Your task to perform on an android device: Open Wikipedia Image 0: 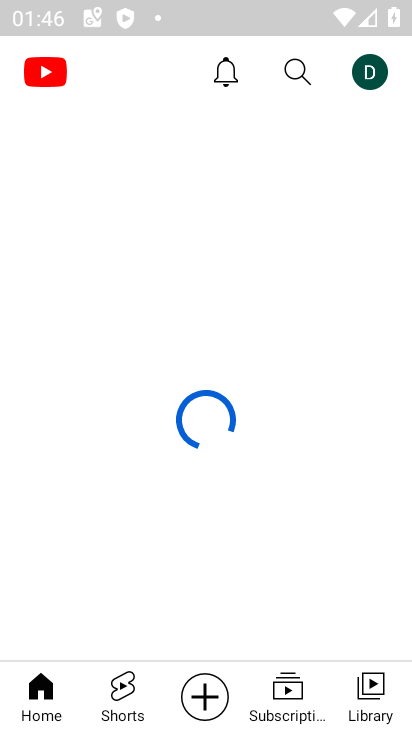
Step 0: press back button
Your task to perform on an android device: Open Wikipedia Image 1: 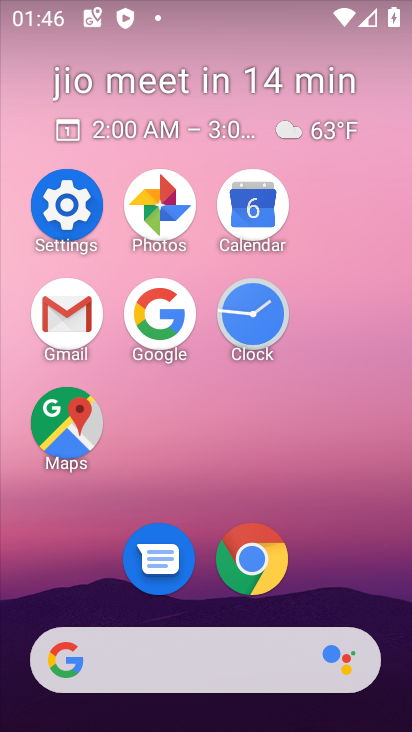
Step 1: click (263, 569)
Your task to perform on an android device: Open Wikipedia Image 2: 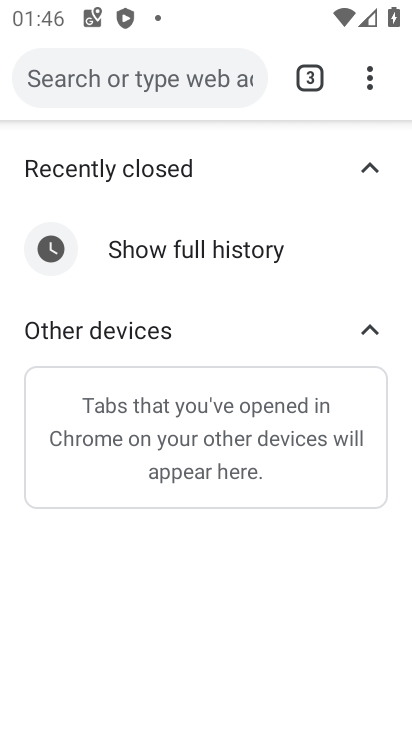
Step 2: click (300, 78)
Your task to perform on an android device: Open Wikipedia Image 3: 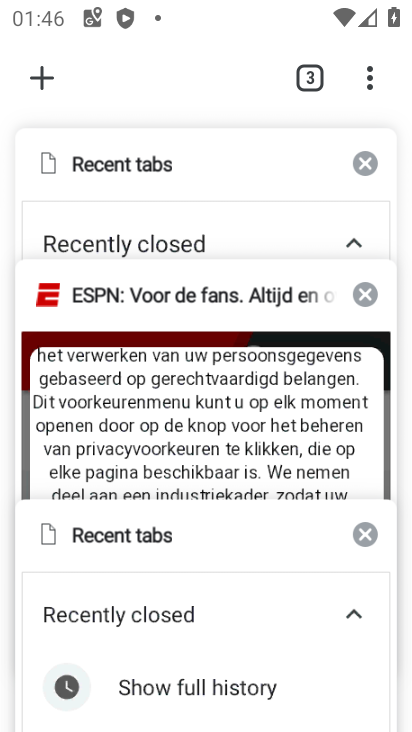
Step 3: drag from (189, 178) to (154, 503)
Your task to perform on an android device: Open Wikipedia Image 4: 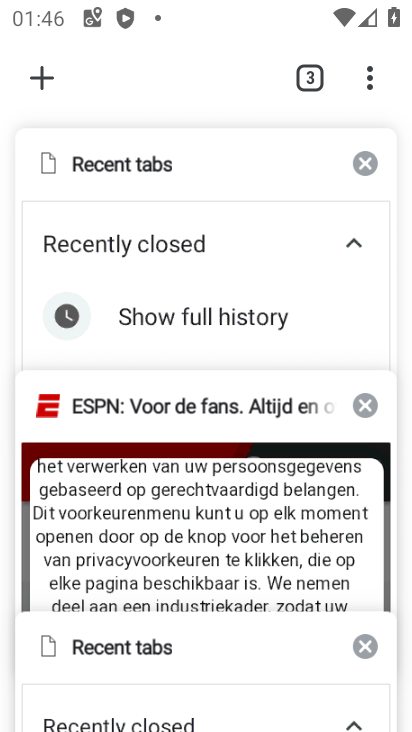
Step 4: click (43, 69)
Your task to perform on an android device: Open Wikipedia Image 5: 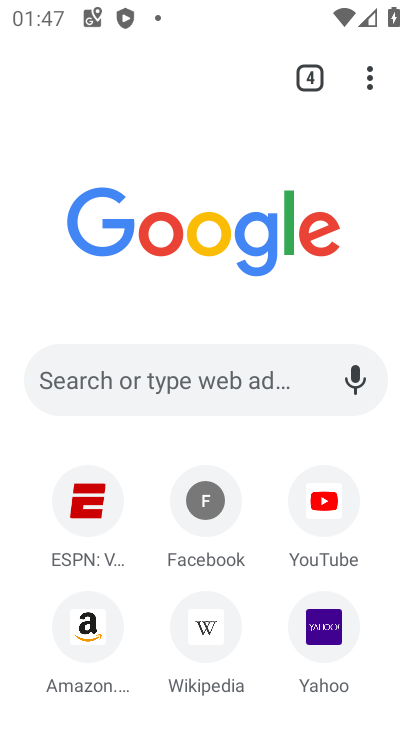
Step 5: click (213, 631)
Your task to perform on an android device: Open Wikipedia Image 6: 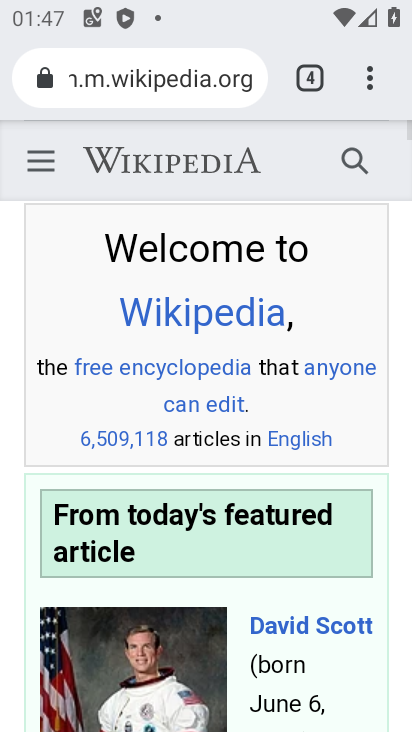
Step 6: task complete